Your task to perform on an android device: turn off smart reply in the gmail app Image 0: 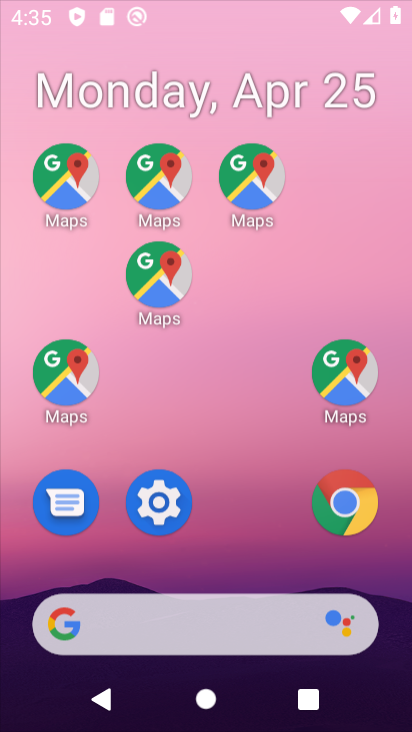
Step 0: click (250, 60)
Your task to perform on an android device: turn off smart reply in the gmail app Image 1: 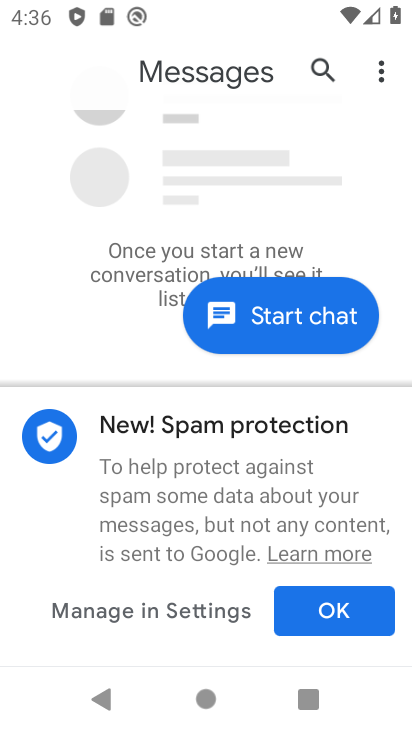
Step 1: press home button
Your task to perform on an android device: turn off smart reply in the gmail app Image 2: 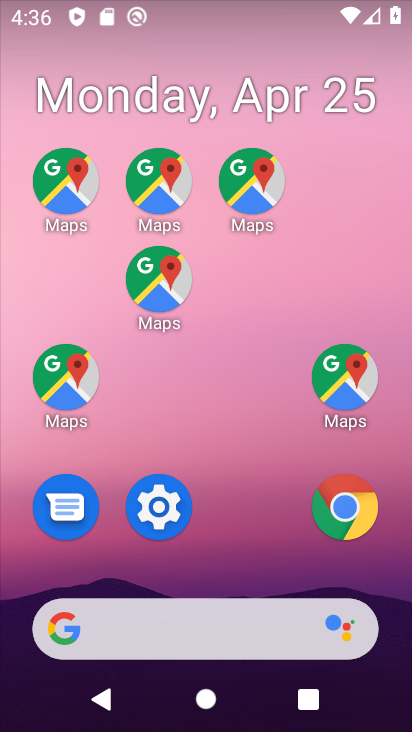
Step 2: drag from (253, 668) to (204, 40)
Your task to perform on an android device: turn off smart reply in the gmail app Image 3: 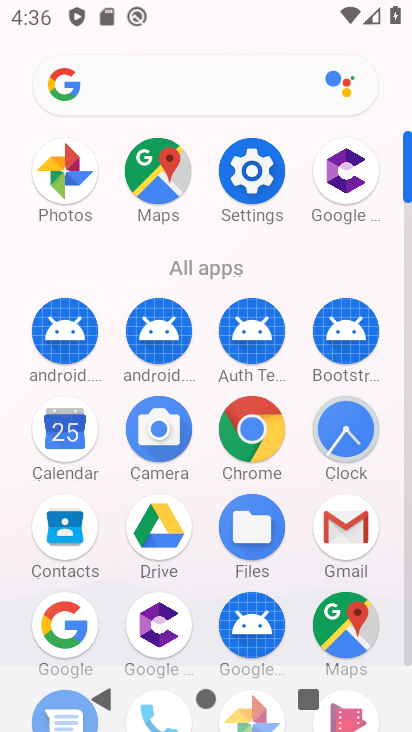
Step 3: click (347, 523)
Your task to perform on an android device: turn off smart reply in the gmail app Image 4: 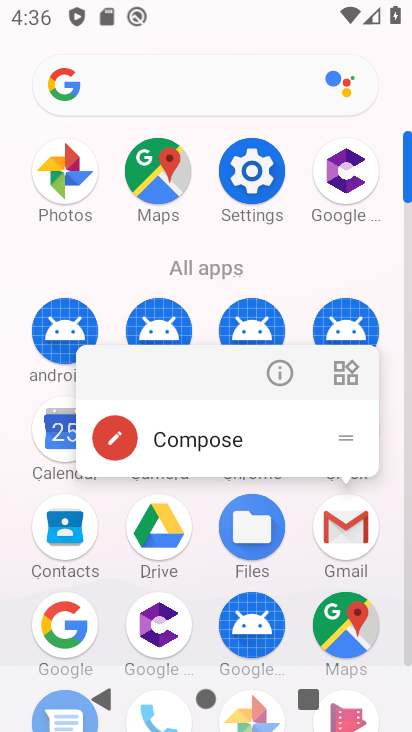
Step 4: click (347, 525)
Your task to perform on an android device: turn off smart reply in the gmail app Image 5: 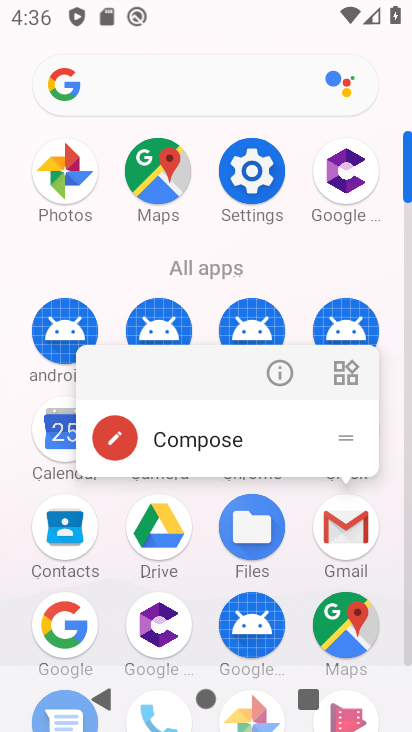
Step 5: click (347, 525)
Your task to perform on an android device: turn off smart reply in the gmail app Image 6: 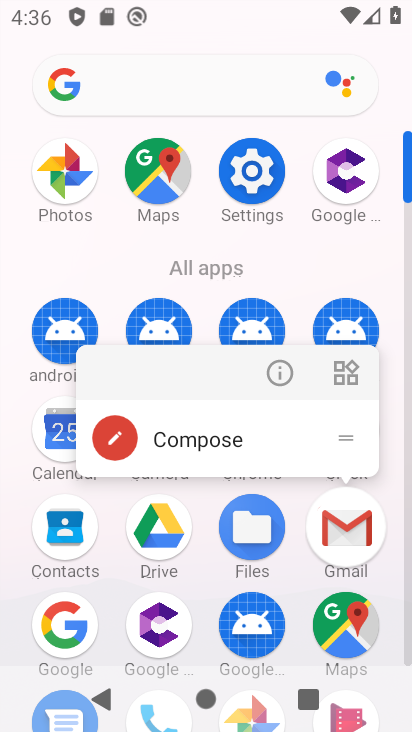
Step 6: click (348, 526)
Your task to perform on an android device: turn off smart reply in the gmail app Image 7: 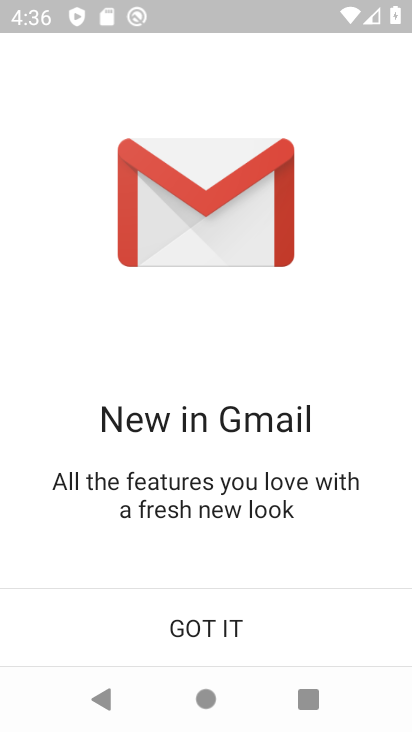
Step 7: click (218, 624)
Your task to perform on an android device: turn off smart reply in the gmail app Image 8: 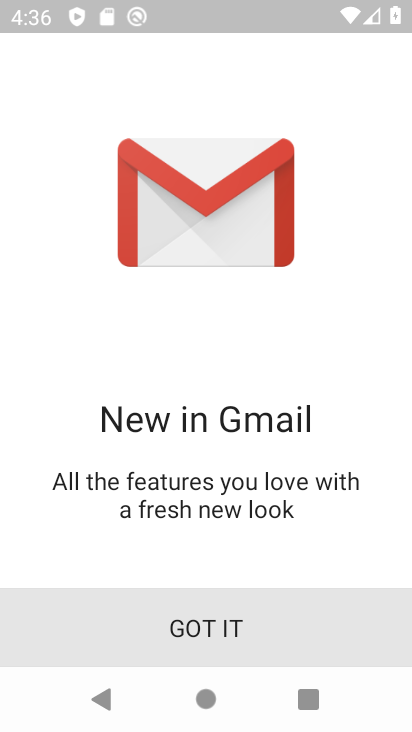
Step 8: click (226, 623)
Your task to perform on an android device: turn off smart reply in the gmail app Image 9: 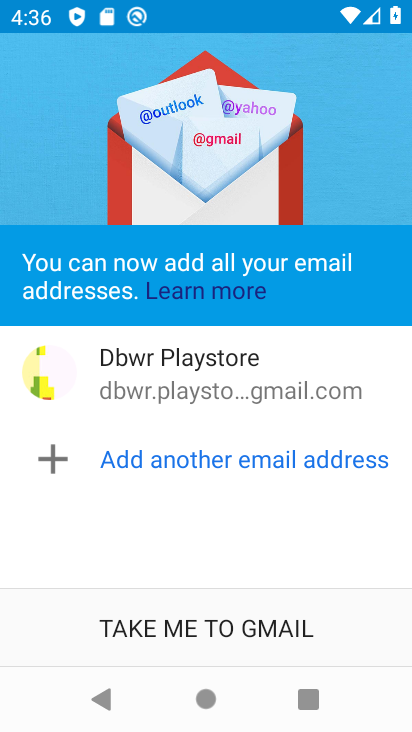
Step 9: click (205, 617)
Your task to perform on an android device: turn off smart reply in the gmail app Image 10: 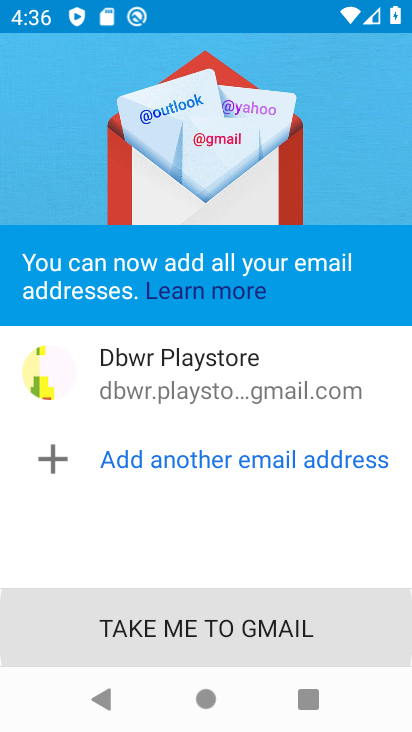
Step 10: click (207, 618)
Your task to perform on an android device: turn off smart reply in the gmail app Image 11: 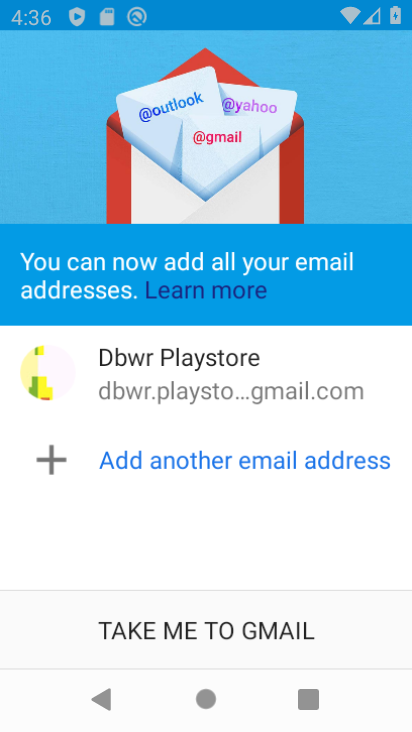
Step 11: click (203, 615)
Your task to perform on an android device: turn off smart reply in the gmail app Image 12: 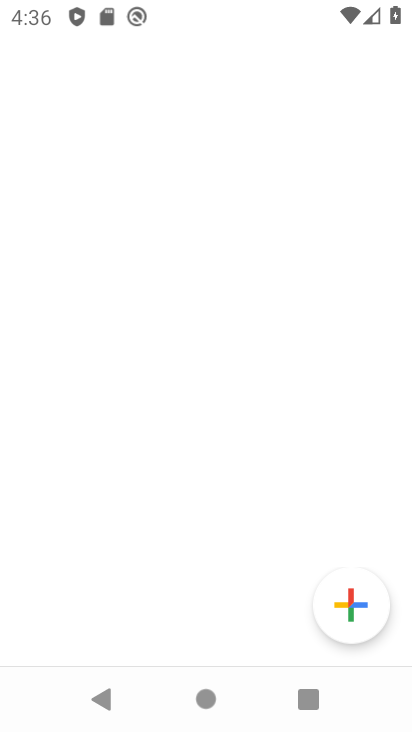
Step 12: click (203, 615)
Your task to perform on an android device: turn off smart reply in the gmail app Image 13: 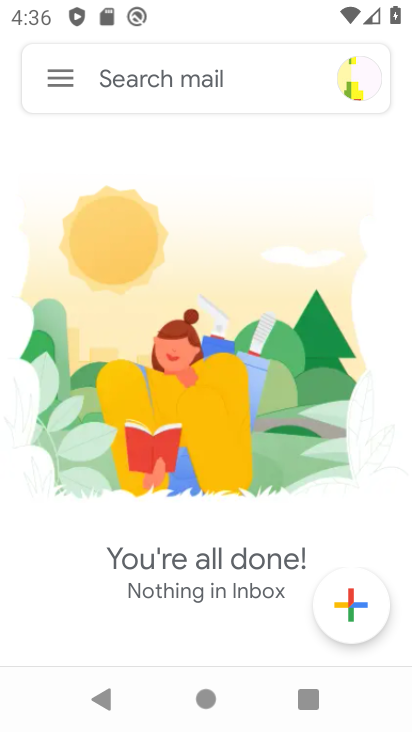
Step 13: click (61, 83)
Your task to perform on an android device: turn off smart reply in the gmail app Image 14: 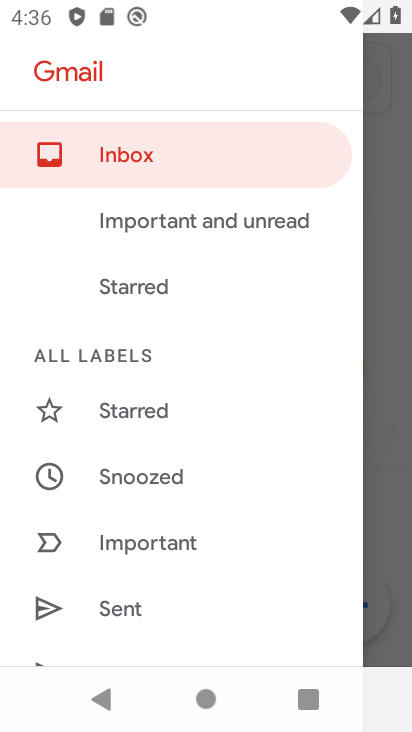
Step 14: drag from (272, 178) to (288, 39)
Your task to perform on an android device: turn off smart reply in the gmail app Image 15: 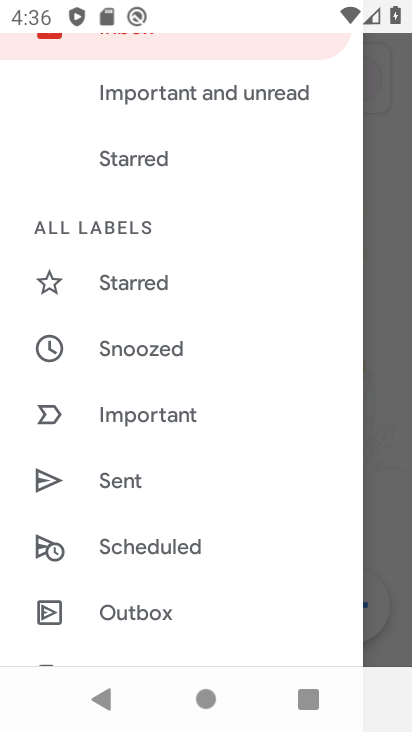
Step 15: drag from (193, 311) to (174, 172)
Your task to perform on an android device: turn off smart reply in the gmail app Image 16: 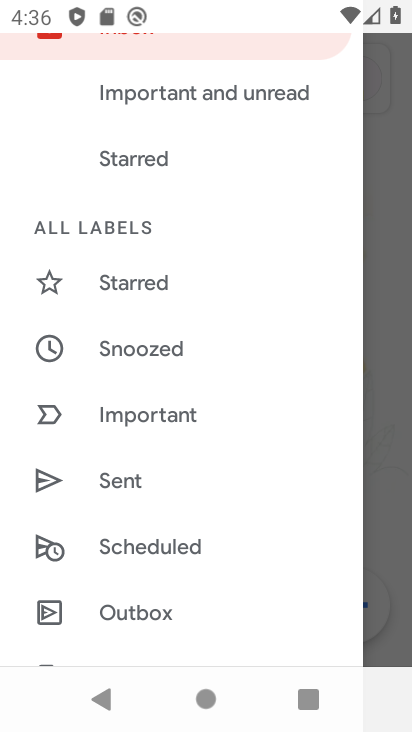
Step 16: drag from (186, 538) to (149, 79)
Your task to perform on an android device: turn off smart reply in the gmail app Image 17: 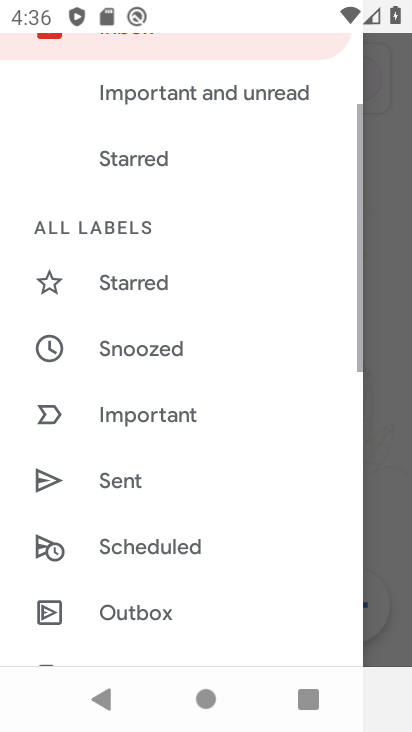
Step 17: drag from (191, 387) to (178, 40)
Your task to perform on an android device: turn off smart reply in the gmail app Image 18: 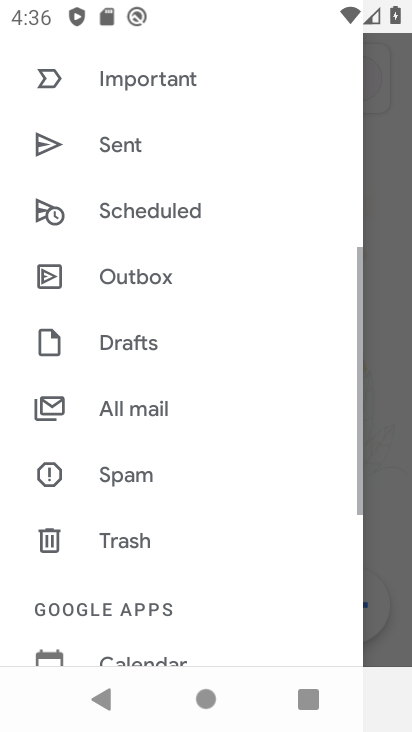
Step 18: drag from (184, 527) to (171, 140)
Your task to perform on an android device: turn off smart reply in the gmail app Image 19: 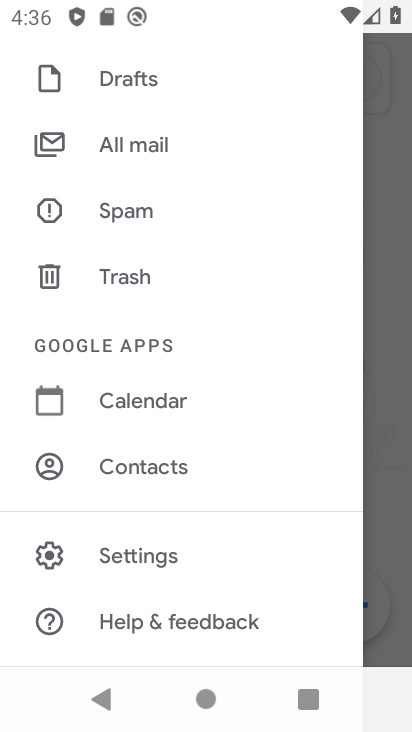
Step 19: click (149, 545)
Your task to perform on an android device: turn off smart reply in the gmail app Image 20: 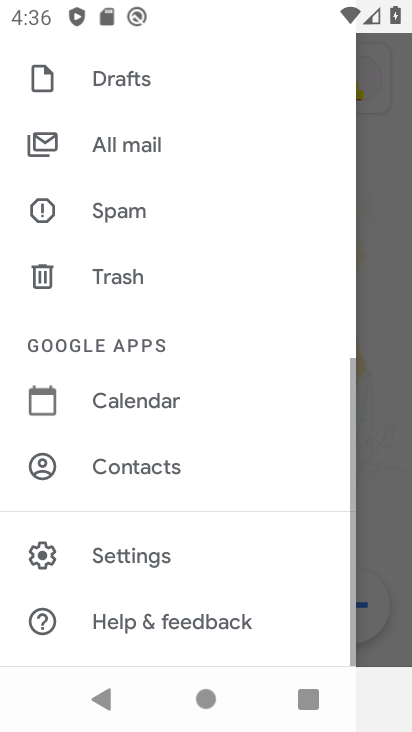
Step 20: click (145, 540)
Your task to perform on an android device: turn off smart reply in the gmail app Image 21: 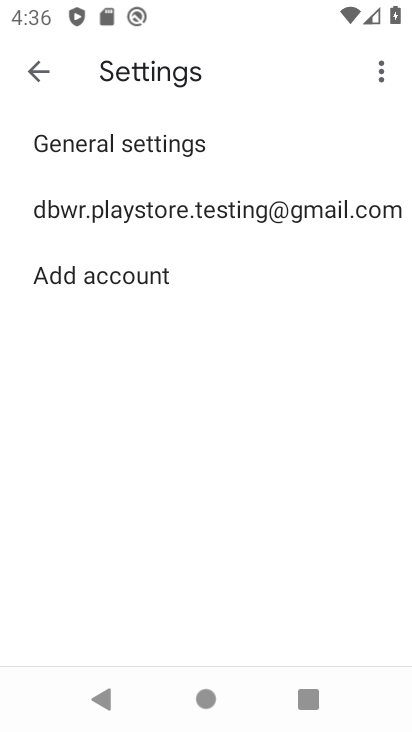
Step 21: click (144, 206)
Your task to perform on an android device: turn off smart reply in the gmail app Image 22: 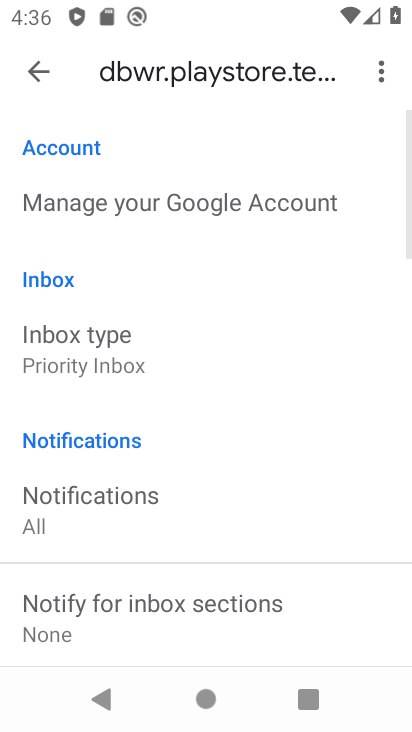
Step 22: drag from (145, 508) to (82, 185)
Your task to perform on an android device: turn off smart reply in the gmail app Image 23: 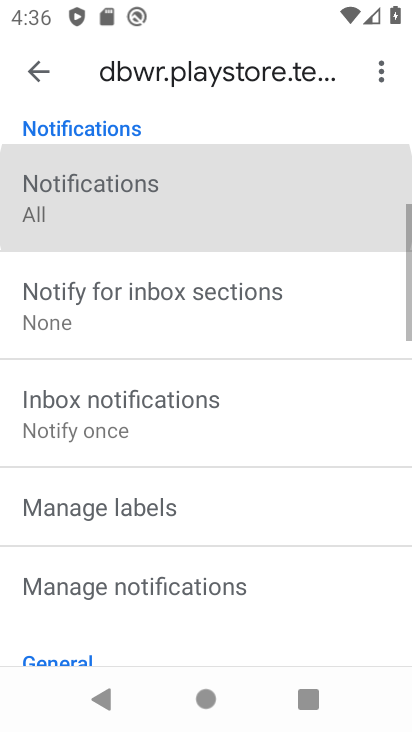
Step 23: drag from (177, 542) to (95, 112)
Your task to perform on an android device: turn off smart reply in the gmail app Image 24: 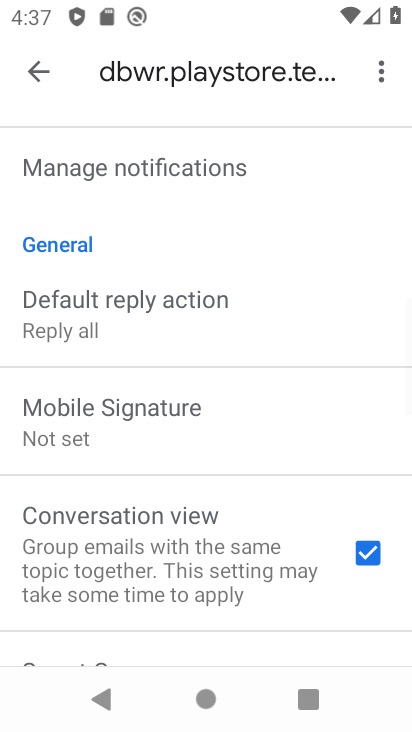
Step 24: drag from (202, 389) to (97, 55)
Your task to perform on an android device: turn off smart reply in the gmail app Image 25: 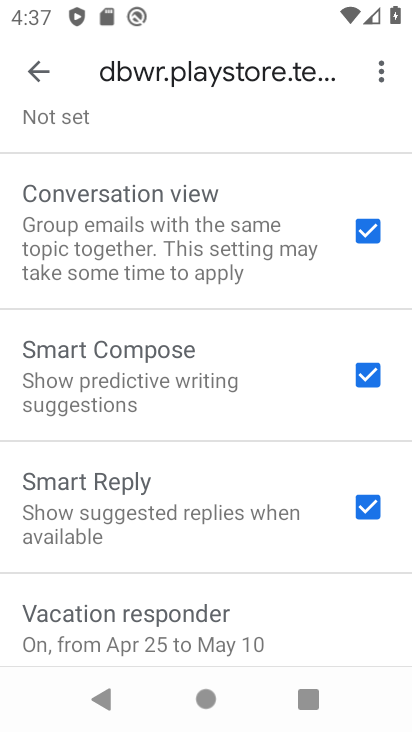
Step 25: click (365, 519)
Your task to perform on an android device: turn off smart reply in the gmail app Image 26: 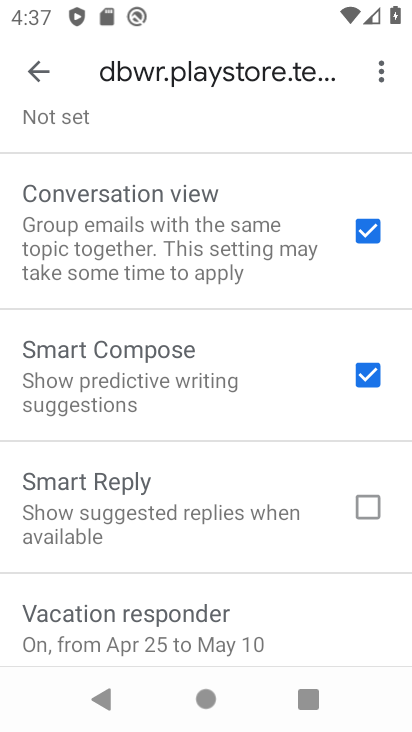
Step 26: task complete